Your task to perform on an android device: Search for "dell xps" on costco, select the first entry, add it to the cart, then select checkout. Image 0: 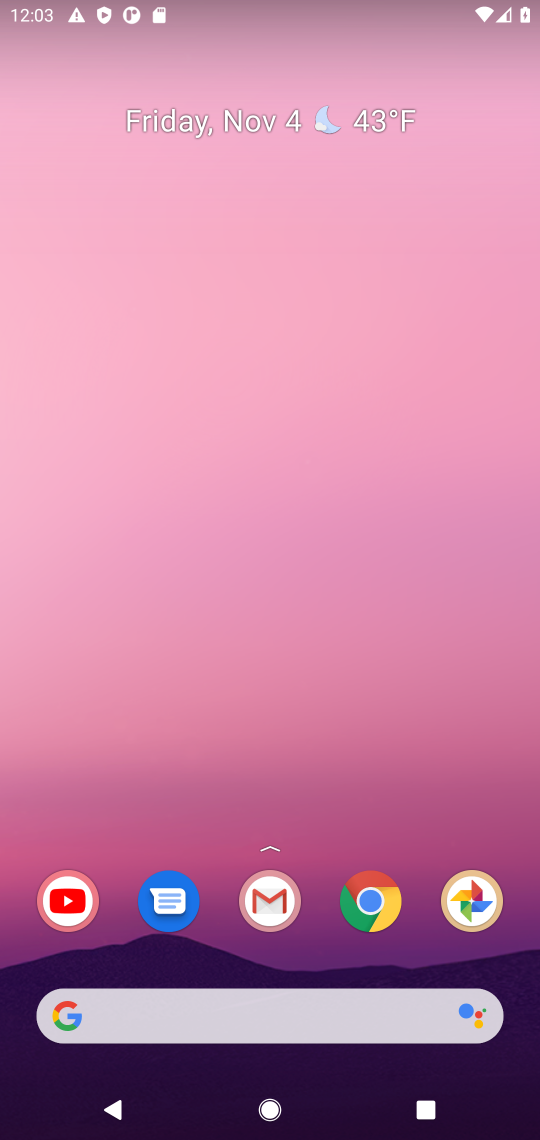
Step 0: click (379, 893)
Your task to perform on an android device: Search for "dell xps" on costco, select the first entry, add it to the cart, then select checkout. Image 1: 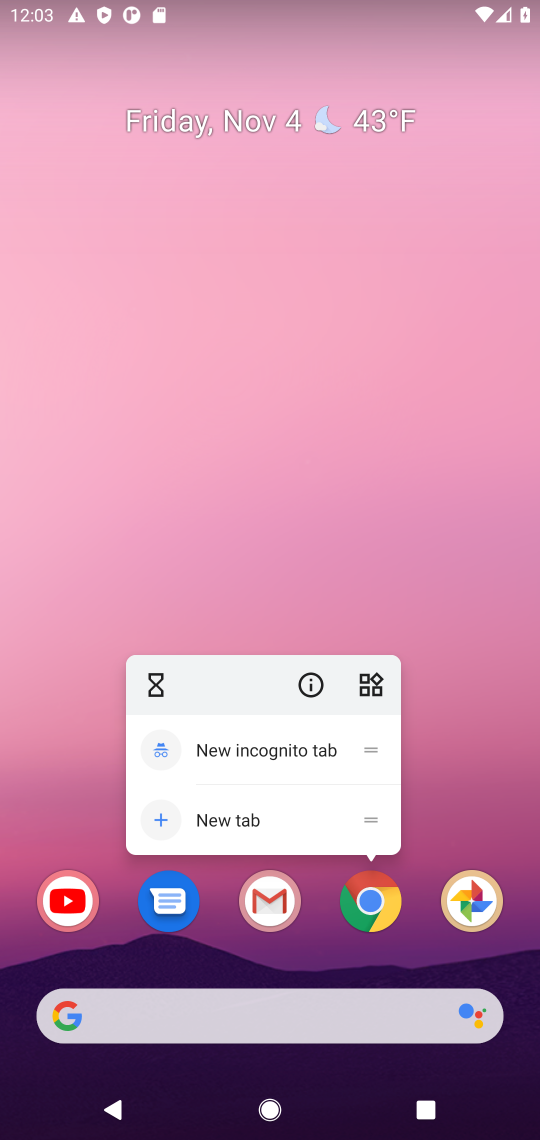
Step 1: click (379, 893)
Your task to perform on an android device: Search for "dell xps" on costco, select the first entry, add it to the cart, then select checkout. Image 2: 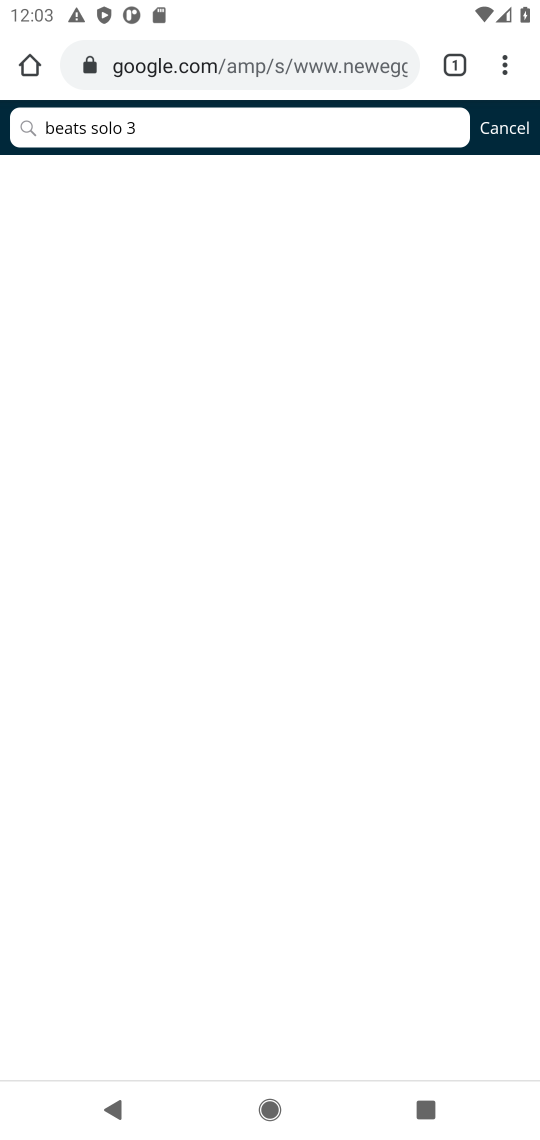
Step 2: click (498, 133)
Your task to perform on an android device: Search for "dell xps" on costco, select the first entry, add it to the cart, then select checkout. Image 3: 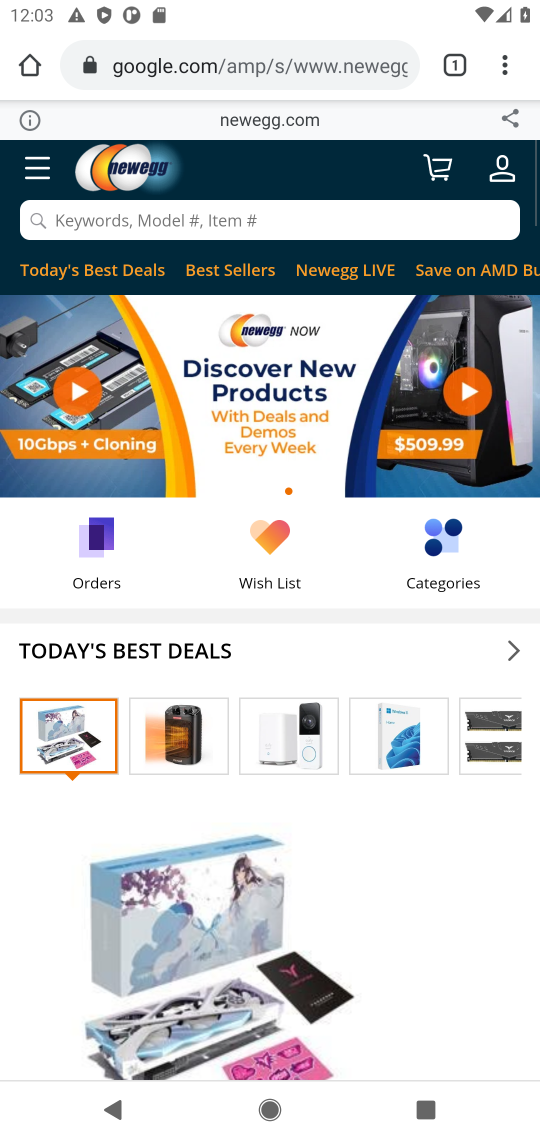
Step 3: click (36, 60)
Your task to perform on an android device: Search for "dell xps" on costco, select the first entry, add it to the cart, then select checkout. Image 4: 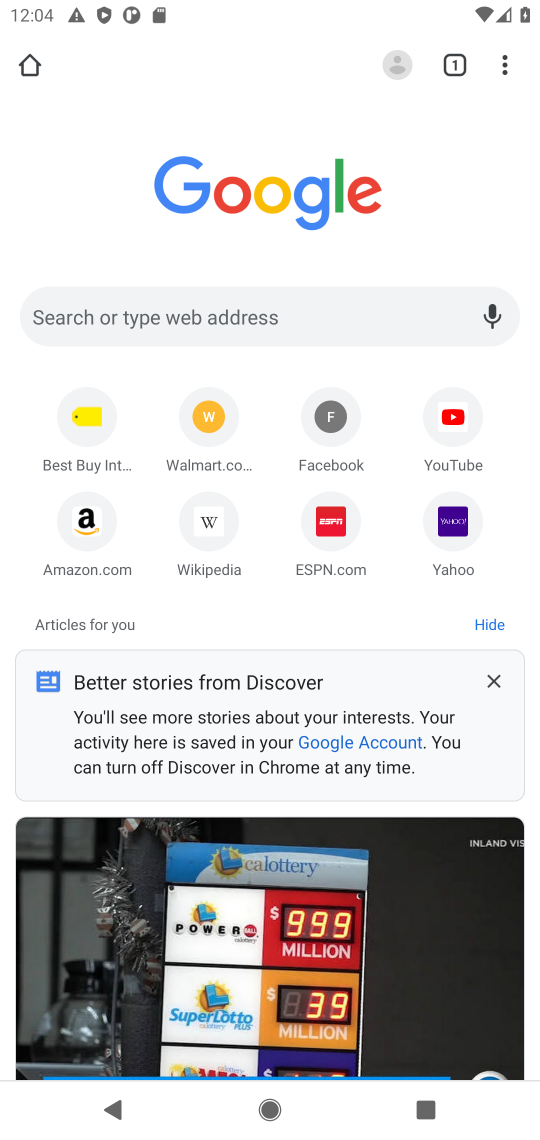
Step 4: click (275, 308)
Your task to perform on an android device: Search for "dell xps" on costco, select the first entry, add it to the cart, then select checkout. Image 5: 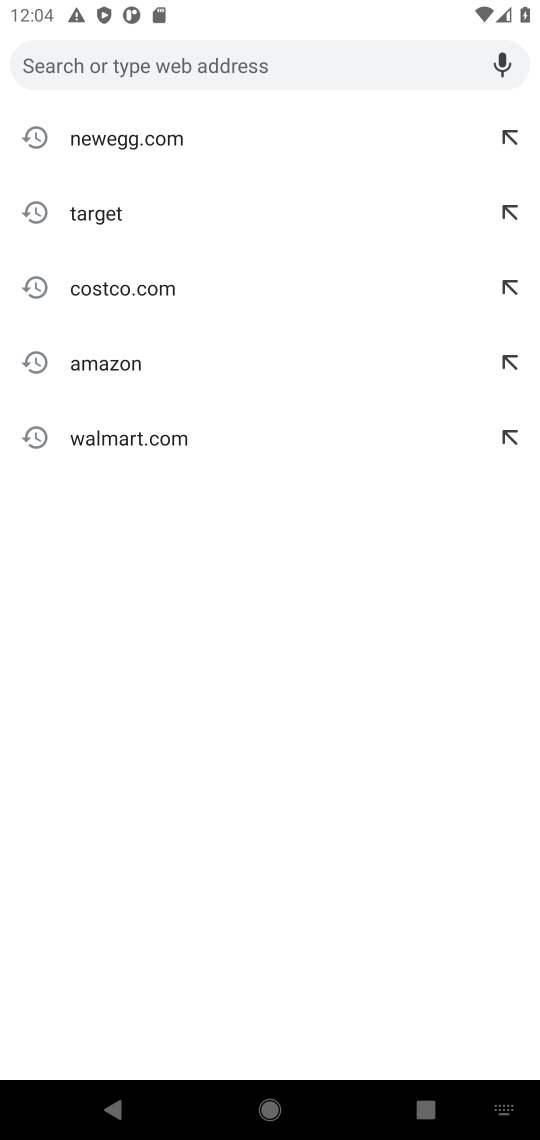
Step 5: click (120, 283)
Your task to perform on an android device: Search for "dell xps" on costco, select the first entry, add it to the cart, then select checkout. Image 6: 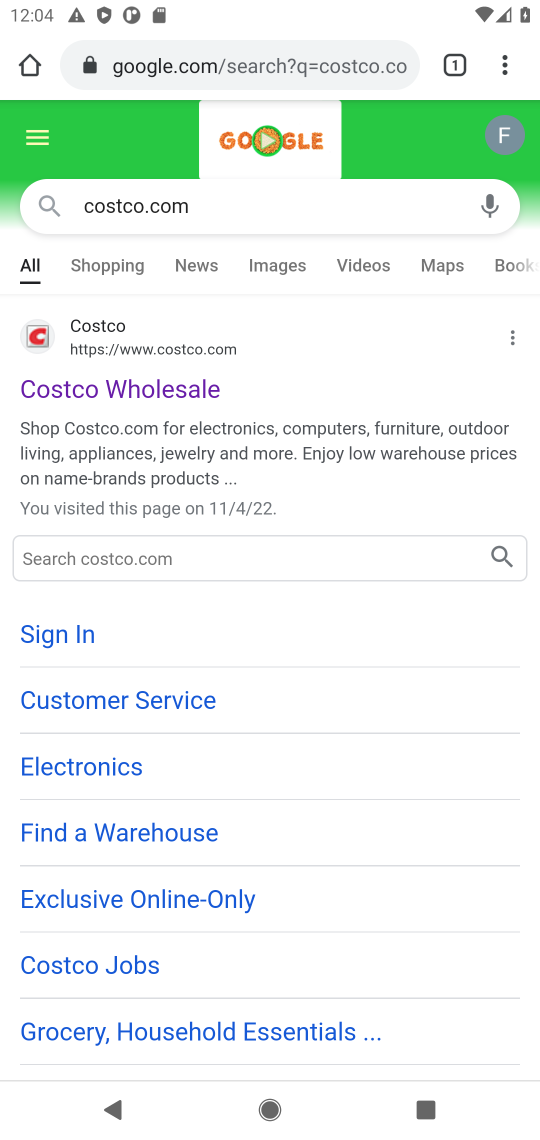
Step 6: click (205, 352)
Your task to perform on an android device: Search for "dell xps" on costco, select the first entry, add it to the cart, then select checkout. Image 7: 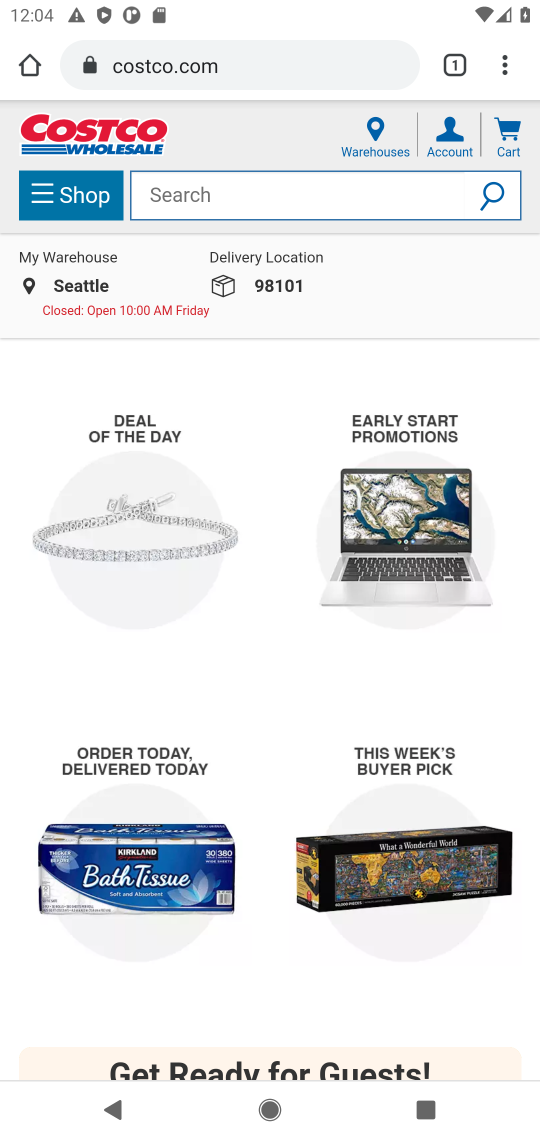
Step 7: click (252, 204)
Your task to perform on an android device: Search for "dell xps" on costco, select the first entry, add it to the cart, then select checkout. Image 8: 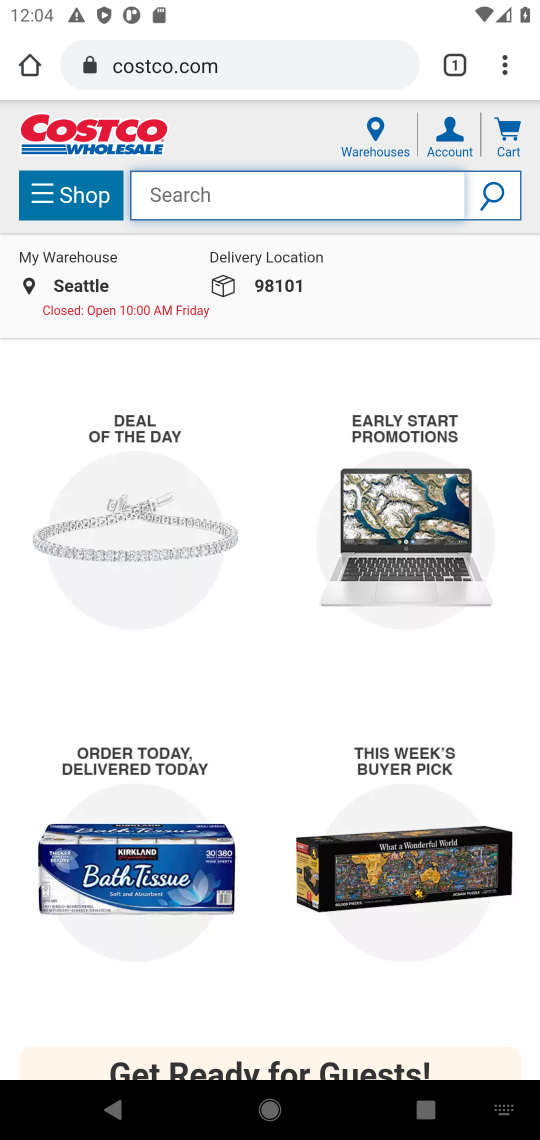
Step 8: type "dell xps"
Your task to perform on an android device: Search for "dell xps" on costco, select the first entry, add it to the cart, then select checkout. Image 9: 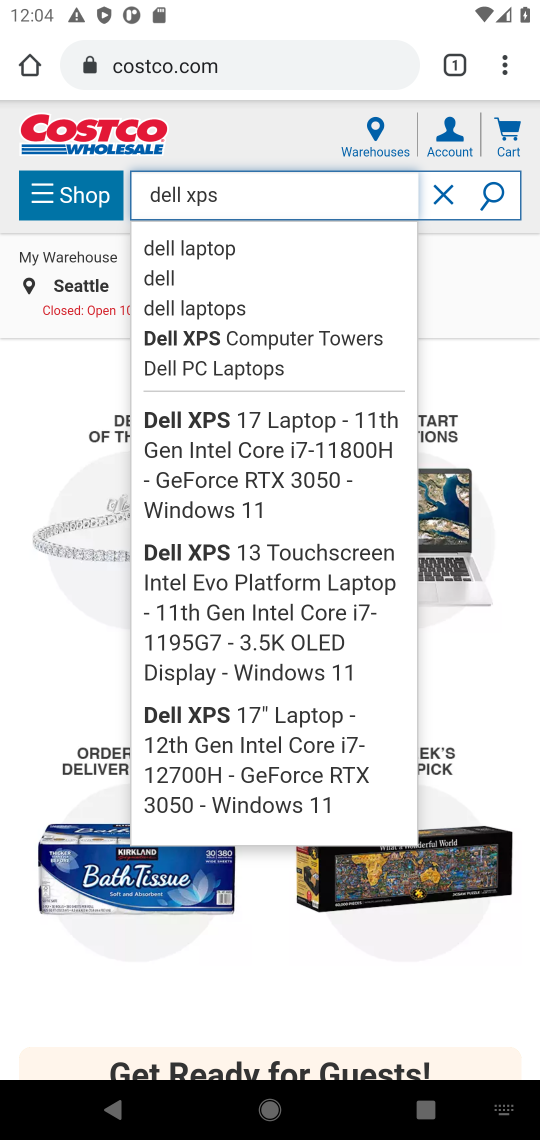
Step 9: click (480, 287)
Your task to perform on an android device: Search for "dell xps" on costco, select the first entry, add it to the cart, then select checkout. Image 10: 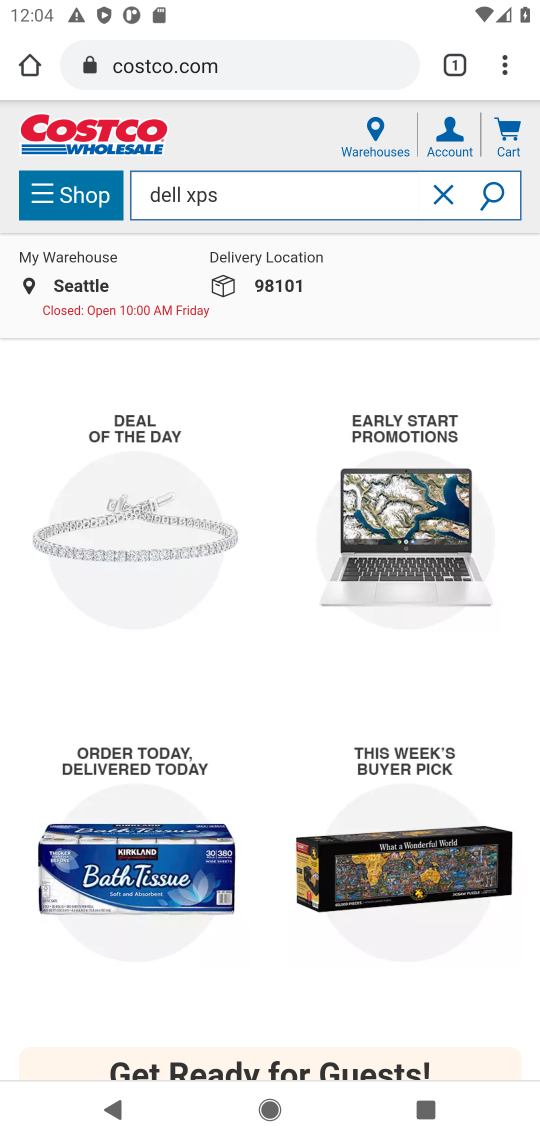
Step 10: click (480, 287)
Your task to perform on an android device: Search for "dell xps" on costco, select the first entry, add it to the cart, then select checkout. Image 11: 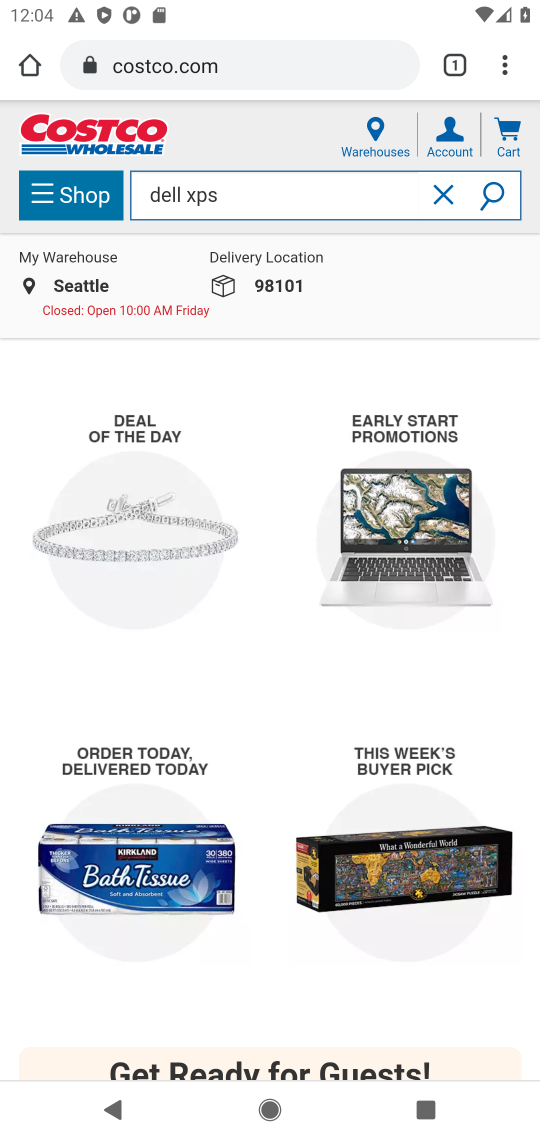
Step 11: click (386, 197)
Your task to perform on an android device: Search for "dell xps" on costco, select the first entry, add it to the cart, then select checkout. Image 12: 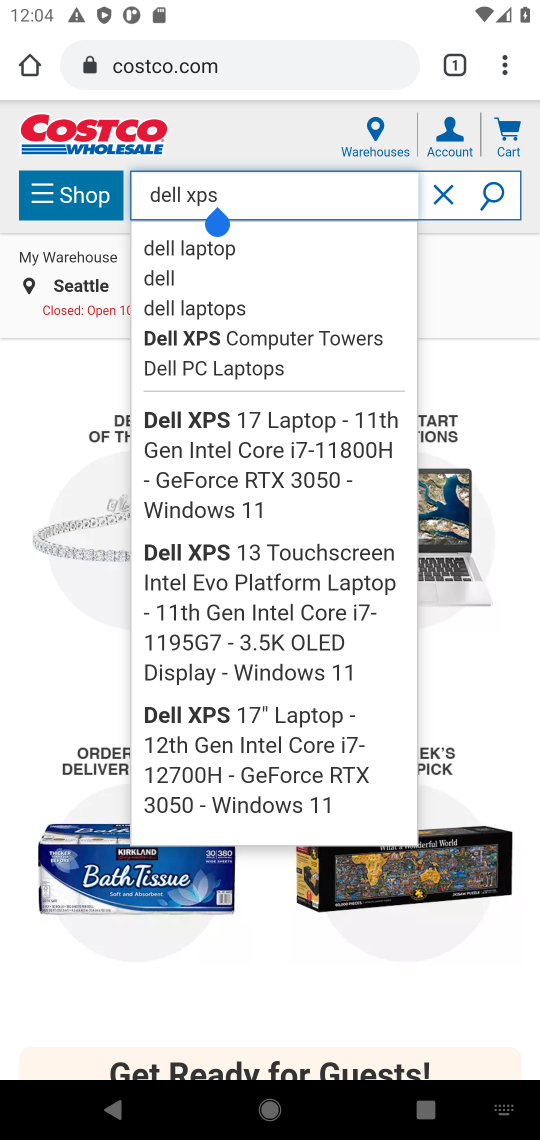
Step 12: click (504, 482)
Your task to perform on an android device: Search for "dell xps" on costco, select the first entry, add it to the cart, then select checkout. Image 13: 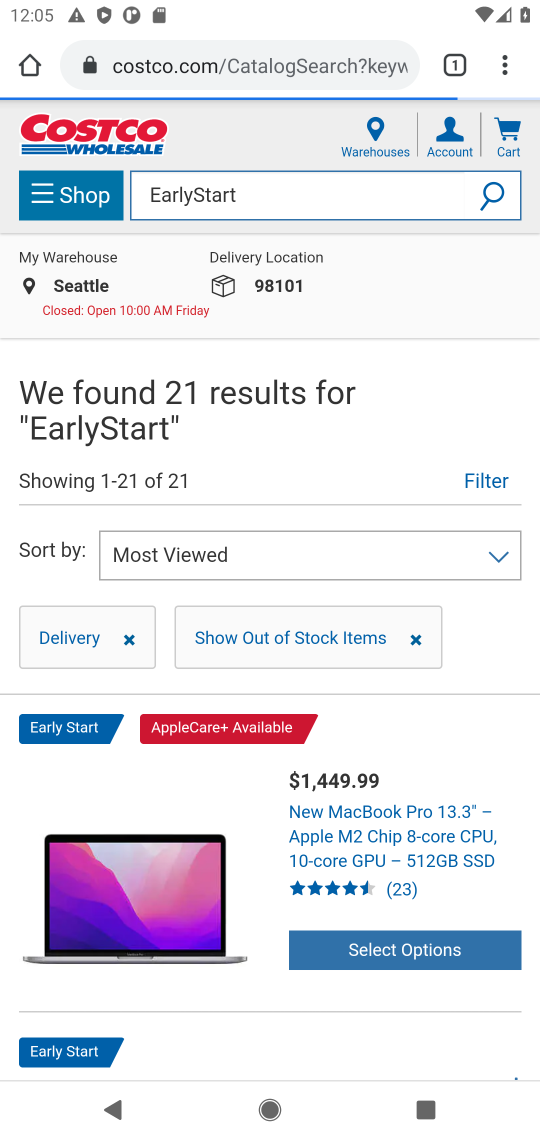
Step 13: task complete